Your task to perform on an android device: find snoozed emails in the gmail app Image 0: 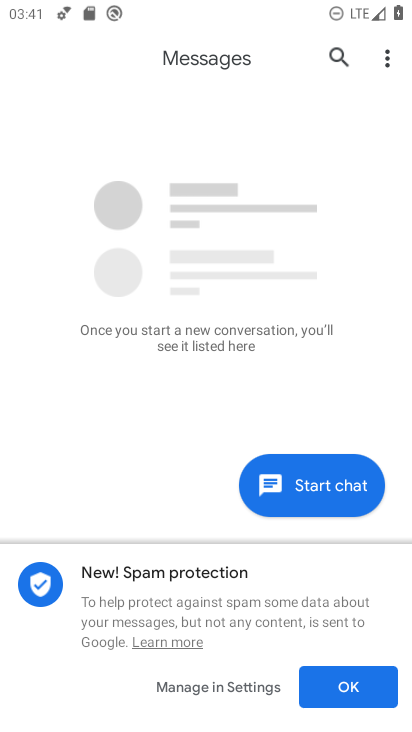
Step 0: press home button
Your task to perform on an android device: find snoozed emails in the gmail app Image 1: 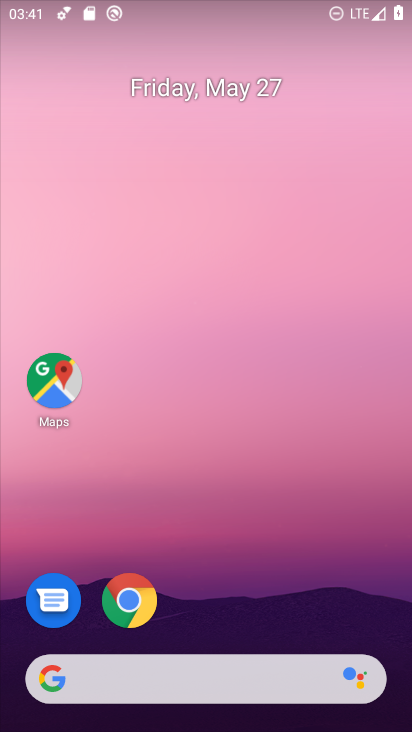
Step 1: drag from (208, 724) to (174, 62)
Your task to perform on an android device: find snoozed emails in the gmail app Image 2: 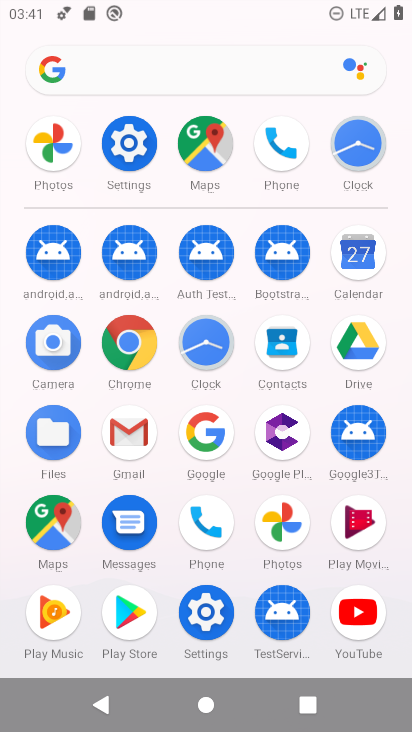
Step 2: click (123, 437)
Your task to perform on an android device: find snoozed emails in the gmail app Image 3: 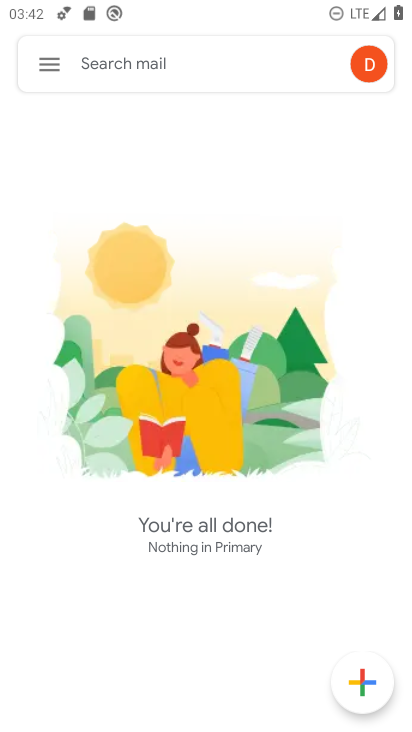
Step 3: click (48, 62)
Your task to perform on an android device: find snoozed emails in the gmail app Image 4: 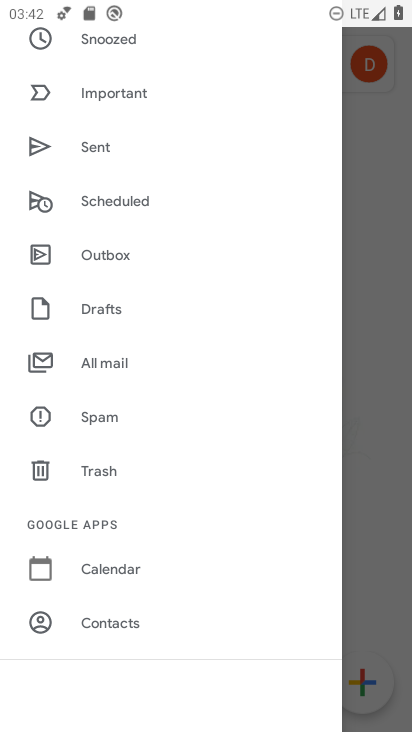
Step 4: drag from (135, 130) to (146, 381)
Your task to perform on an android device: find snoozed emails in the gmail app Image 5: 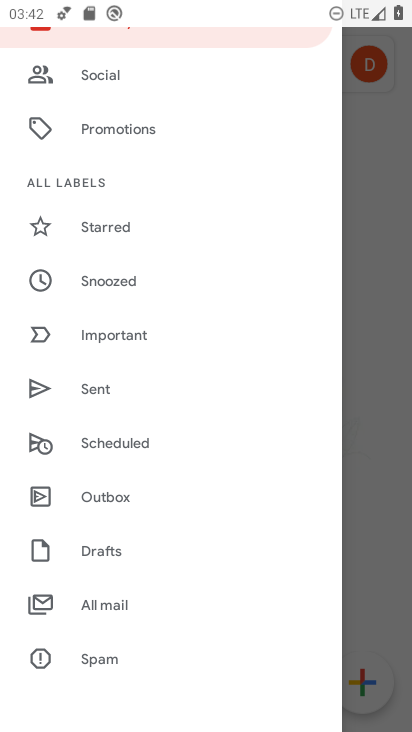
Step 5: click (101, 274)
Your task to perform on an android device: find snoozed emails in the gmail app Image 6: 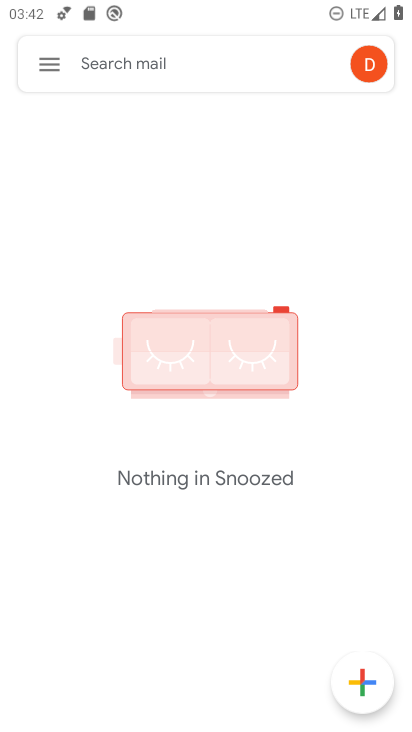
Step 6: task complete